Your task to perform on an android device: open chrome and create a bookmark for the current page Image 0: 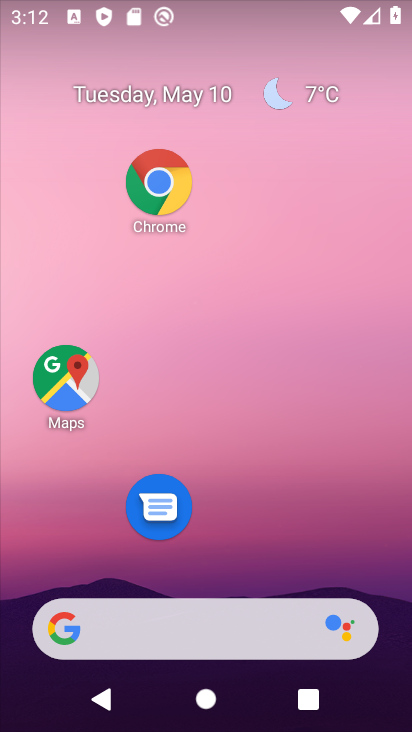
Step 0: drag from (333, 506) to (293, 215)
Your task to perform on an android device: open chrome and create a bookmark for the current page Image 1: 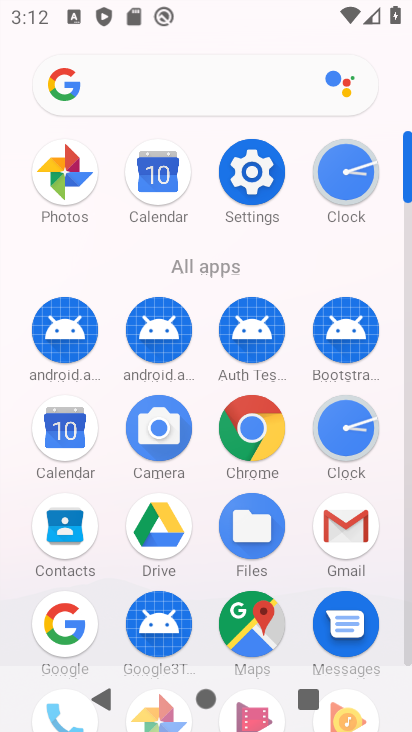
Step 1: click (241, 630)
Your task to perform on an android device: open chrome and create a bookmark for the current page Image 2: 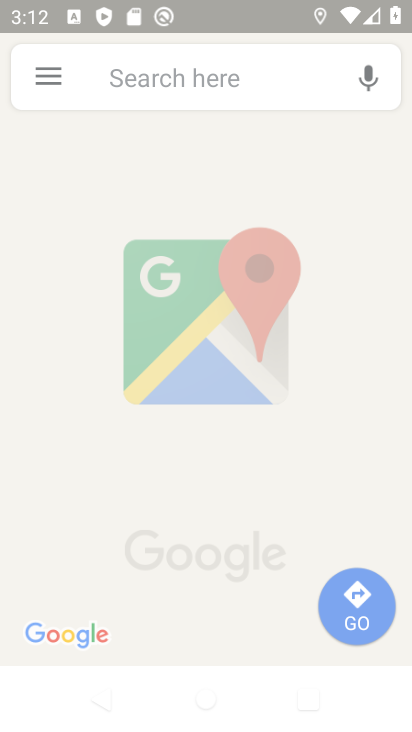
Step 2: press home button
Your task to perform on an android device: open chrome and create a bookmark for the current page Image 3: 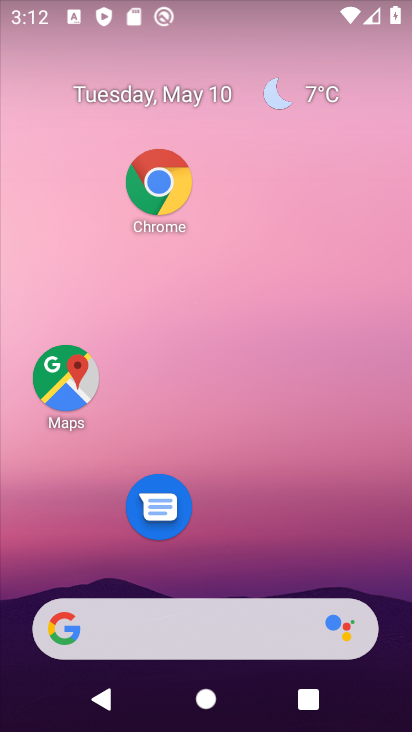
Step 3: click (176, 211)
Your task to perform on an android device: open chrome and create a bookmark for the current page Image 4: 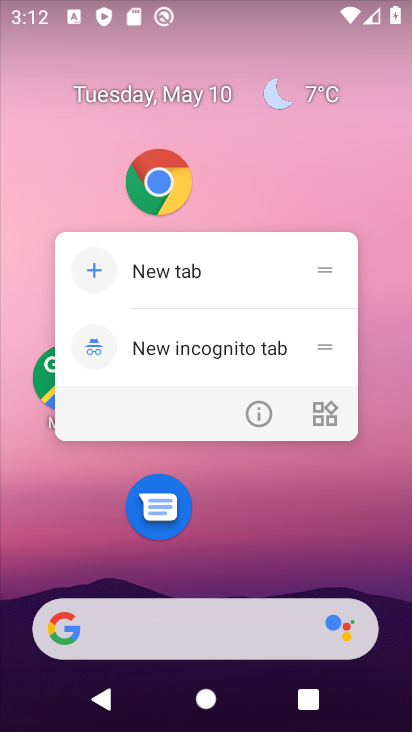
Step 4: click (176, 211)
Your task to perform on an android device: open chrome and create a bookmark for the current page Image 5: 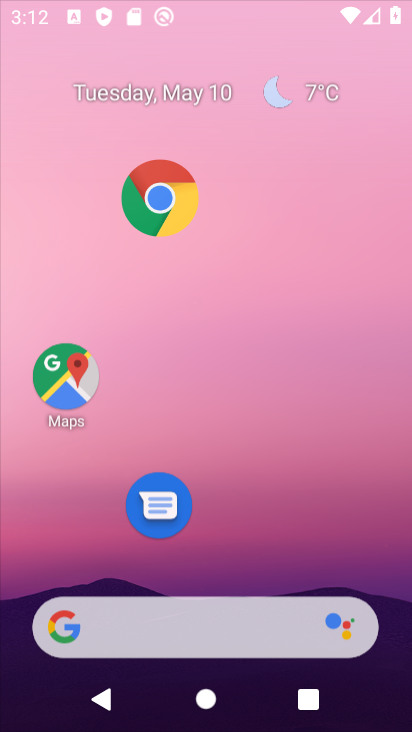
Step 5: click (176, 211)
Your task to perform on an android device: open chrome and create a bookmark for the current page Image 6: 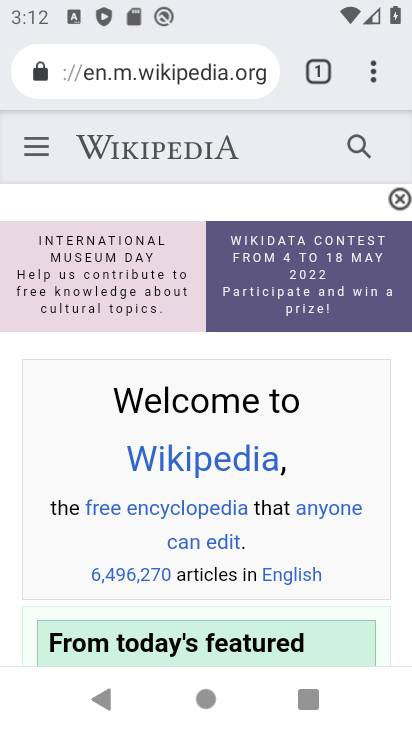
Step 6: click (360, 65)
Your task to perform on an android device: open chrome and create a bookmark for the current page Image 7: 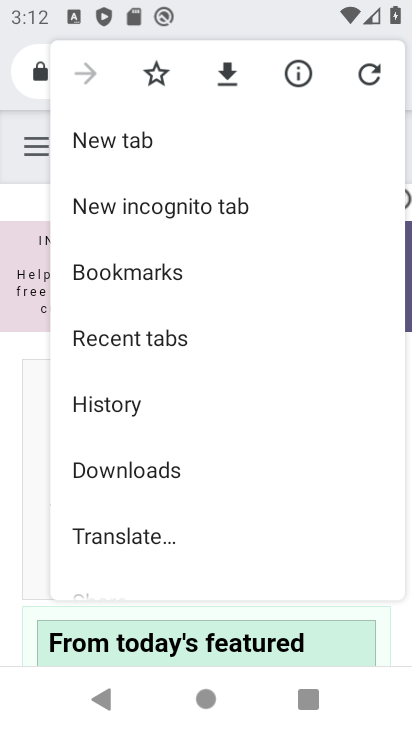
Step 7: click (163, 70)
Your task to perform on an android device: open chrome and create a bookmark for the current page Image 8: 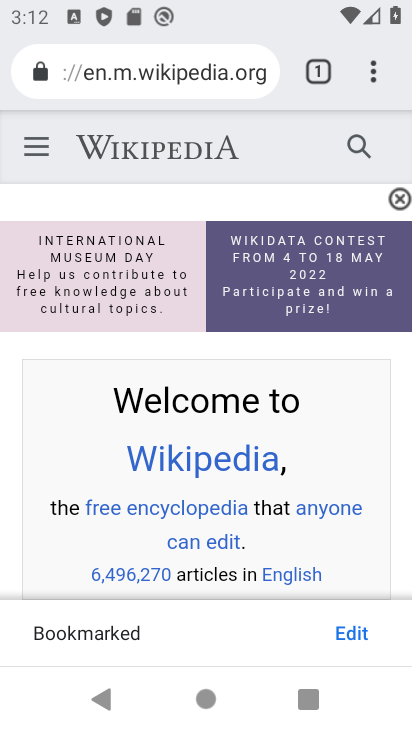
Step 8: task complete